Your task to perform on an android device: turn off sleep mode Image 0: 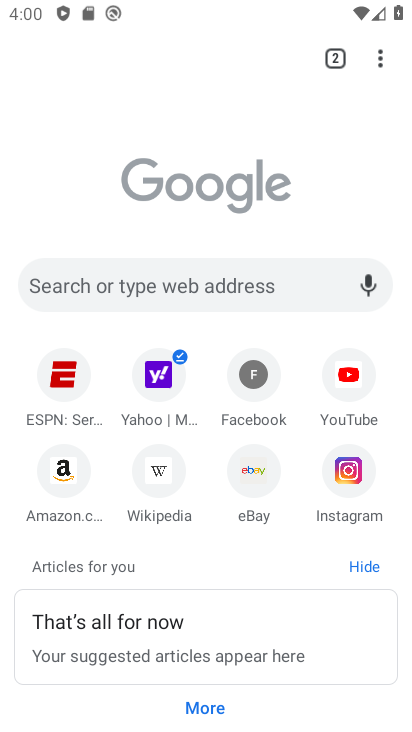
Step 0: press home button
Your task to perform on an android device: turn off sleep mode Image 1: 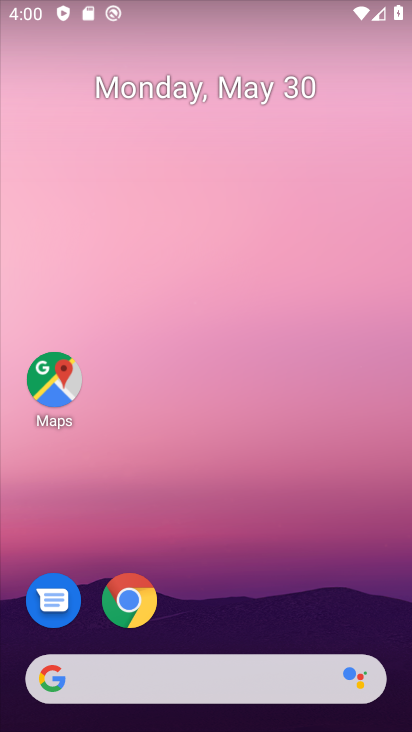
Step 1: drag from (229, 615) to (231, 218)
Your task to perform on an android device: turn off sleep mode Image 2: 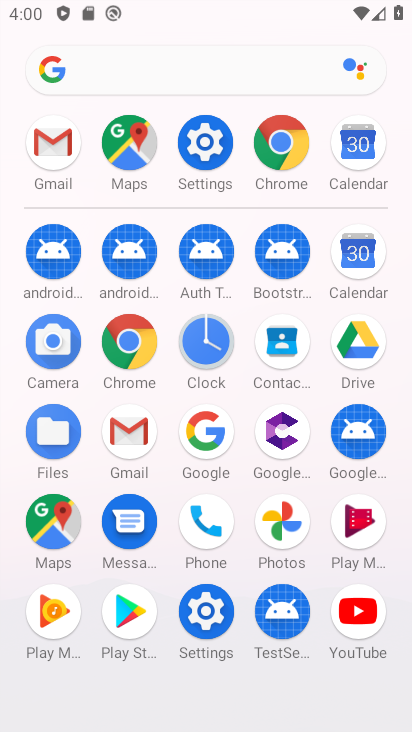
Step 2: click (205, 149)
Your task to perform on an android device: turn off sleep mode Image 3: 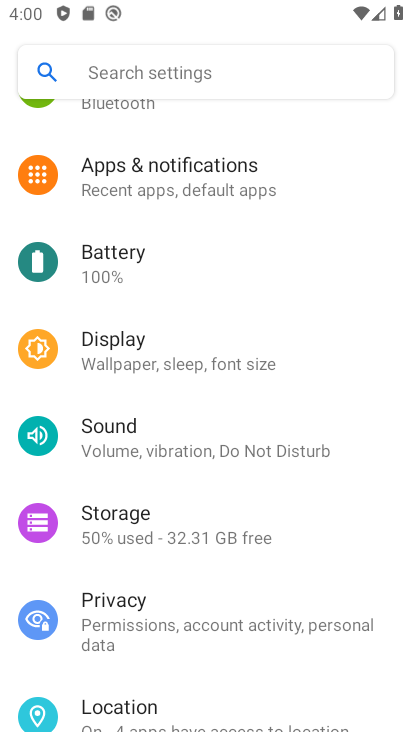
Step 3: click (234, 354)
Your task to perform on an android device: turn off sleep mode Image 4: 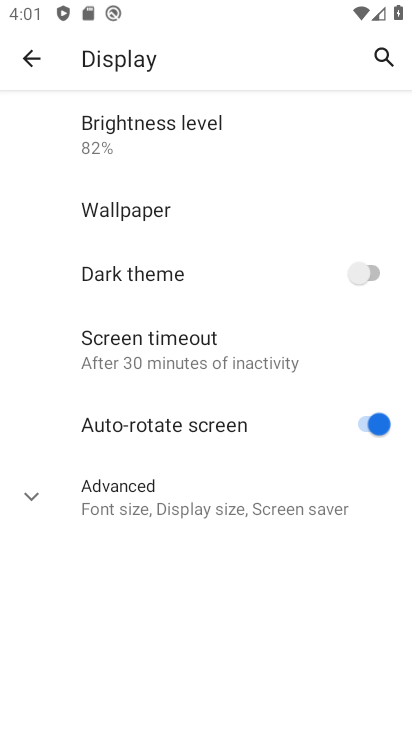
Step 4: click (237, 520)
Your task to perform on an android device: turn off sleep mode Image 5: 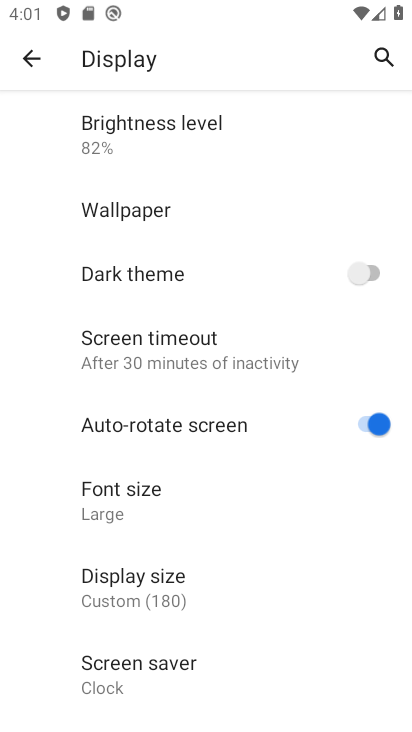
Step 5: task complete